Your task to perform on an android device: choose inbox layout in the gmail app Image 0: 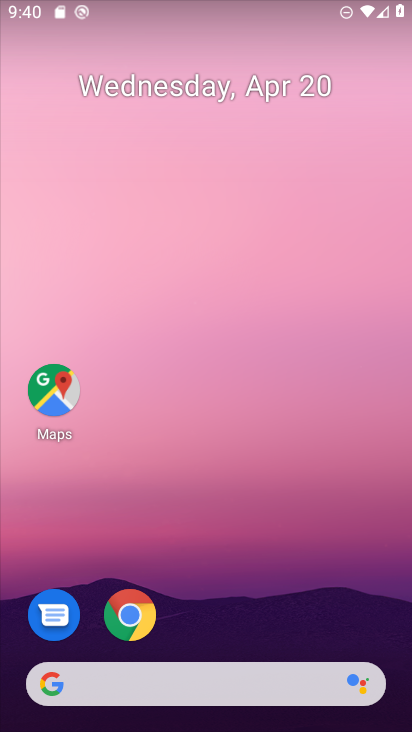
Step 0: drag from (223, 618) to (244, 197)
Your task to perform on an android device: choose inbox layout in the gmail app Image 1: 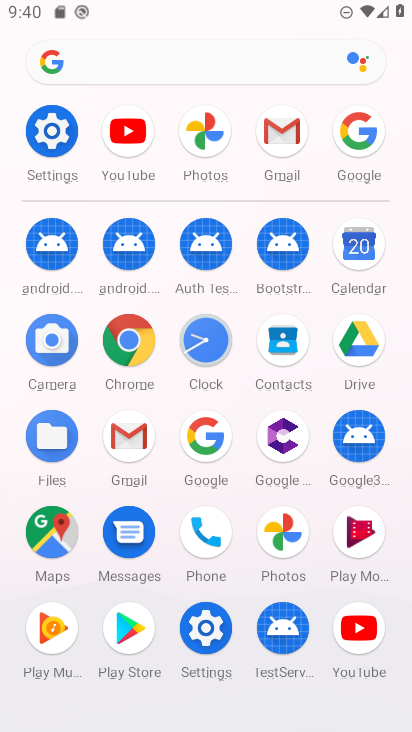
Step 1: click (283, 128)
Your task to perform on an android device: choose inbox layout in the gmail app Image 2: 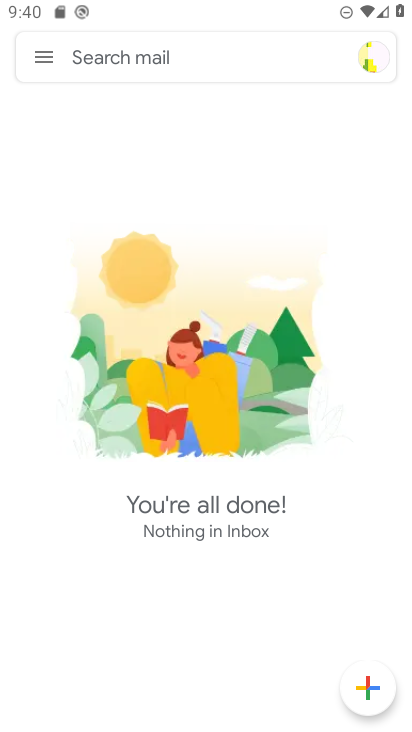
Step 2: click (45, 58)
Your task to perform on an android device: choose inbox layout in the gmail app Image 3: 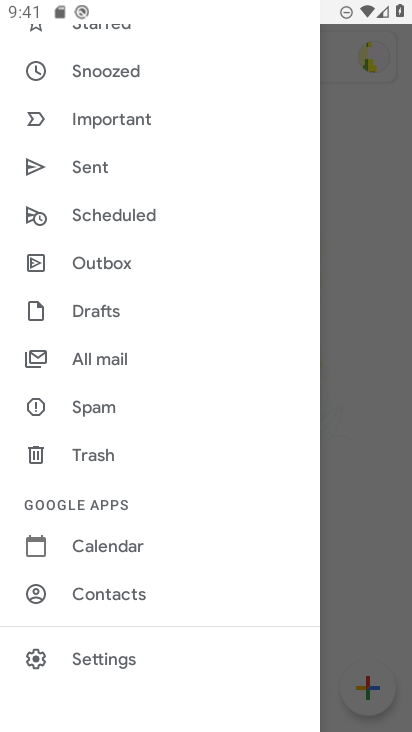
Step 3: click (102, 660)
Your task to perform on an android device: choose inbox layout in the gmail app Image 4: 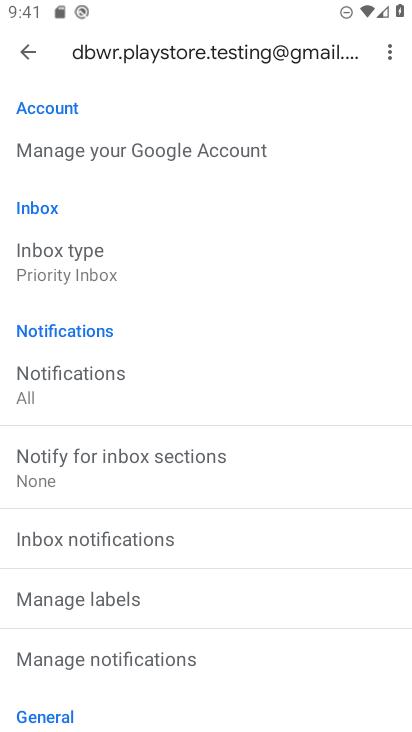
Step 4: click (94, 279)
Your task to perform on an android device: choose inbox layout in the gmail app Image 5: 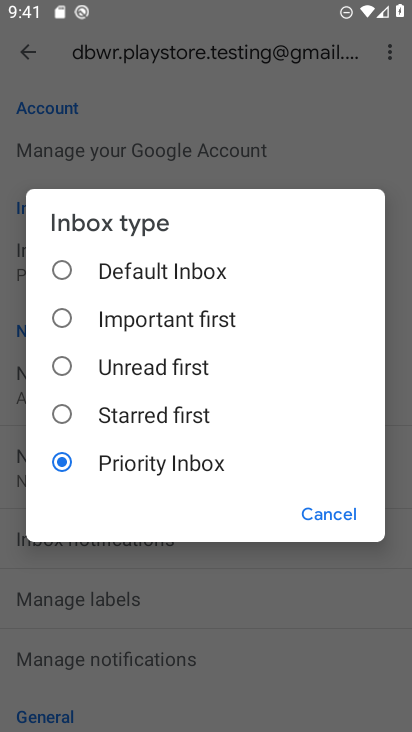
Step 5: click (144, 362)
Your task to perform on an android device: choose inbox layout in the gmail app Image 6: 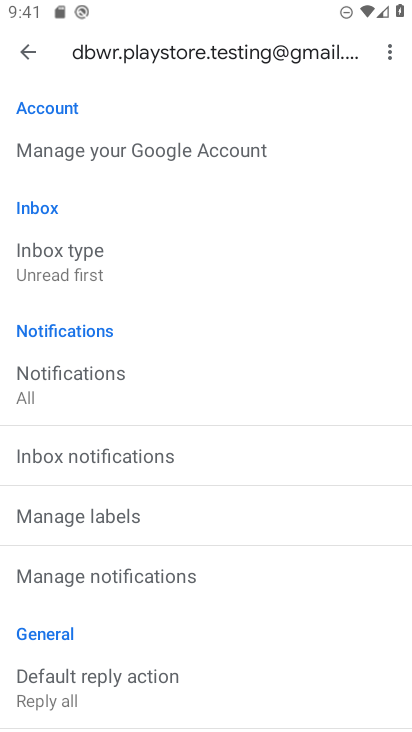
Step 6: task complete